Your task to perform on an android device: See recent photos Image 0: 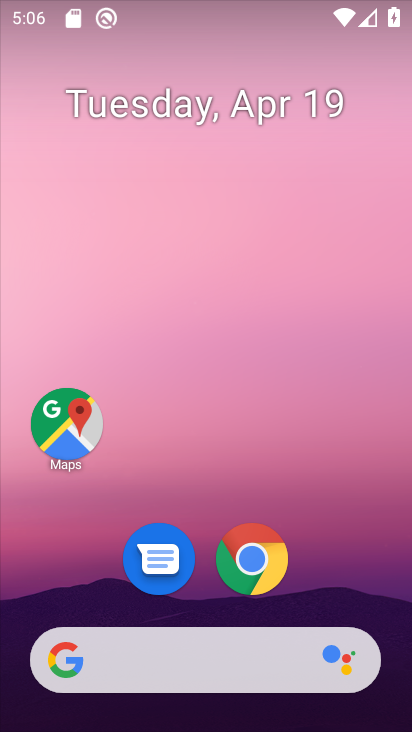
Step 0: press home button
Your task to perform on an android device: See recent photos Image 1: 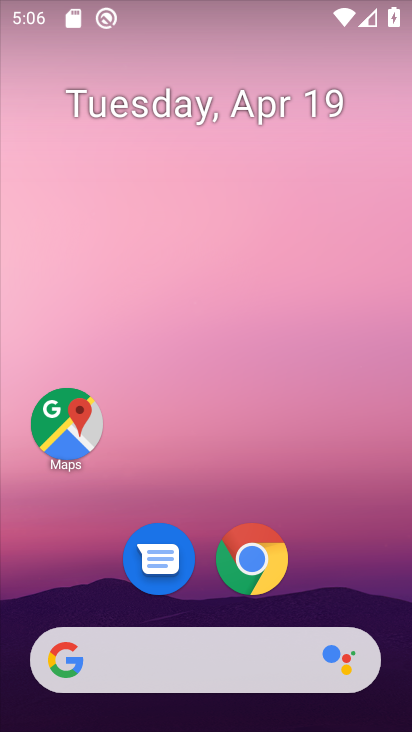
Step 1: drag from (211, 603) to (318, 204)
Your task to perform on an android device: See recent photos Image 2: 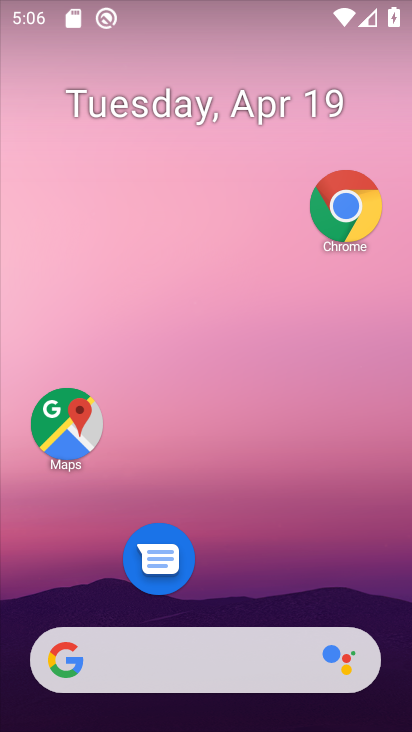
Step 2: drag from (218, 641) to (268, 244)
Your task to perform on an android device: See recent photos Image 3: 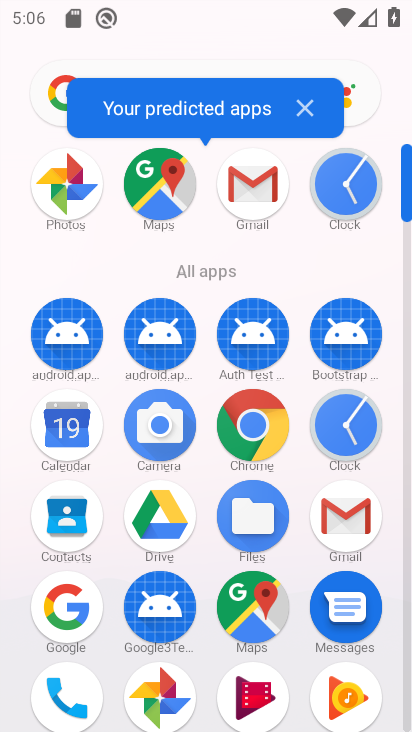
Step 3: drag from (203, 655) to (289, 477)
Your task to perform on an android device: See recent photos Image 4: 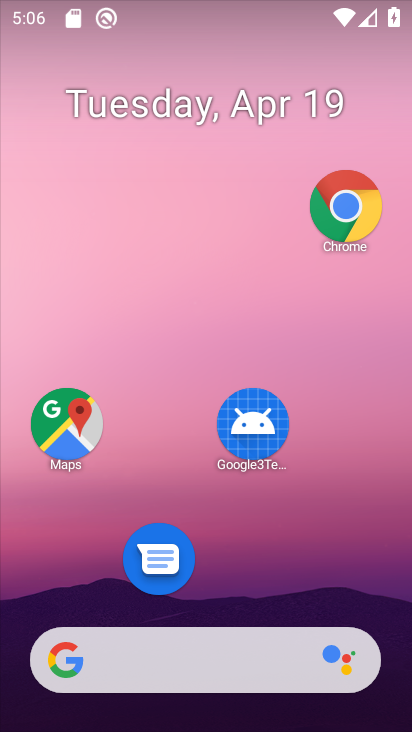
Step 4: drag from (247, 704) to (335, 220)
Your task to perform on an android device: See recent photos Image 5: 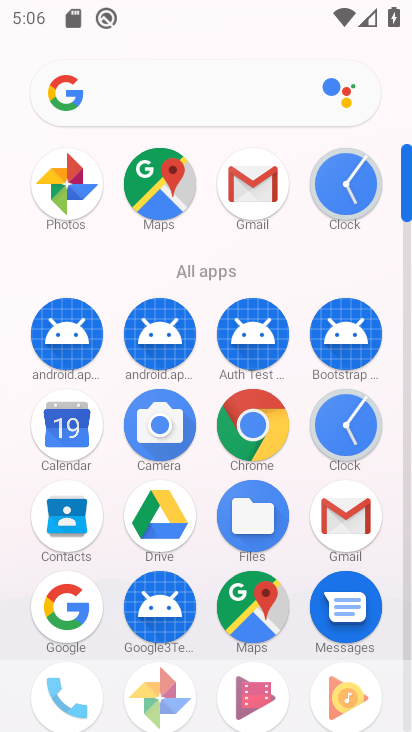
Step 5: click (66, 181)
Your task to perform on an android device: See recent photos Image 6: 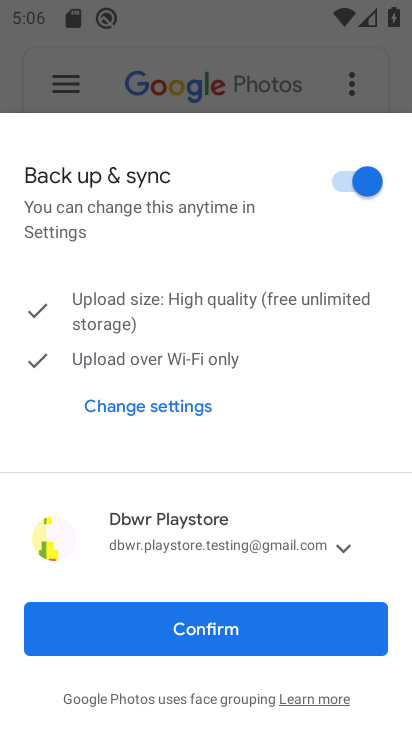
Step 6: click (260, 627)
Your task to perform on an android device: See recent photos Image 7: 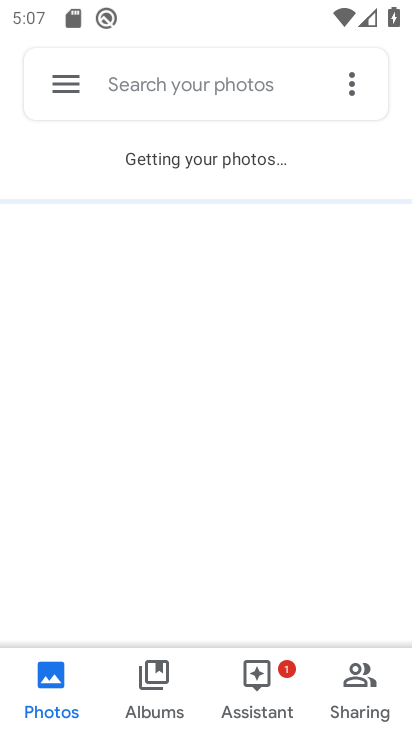
Step 7: click (167, 678)
Your task to perform on an android device: See recent photos Image 8: 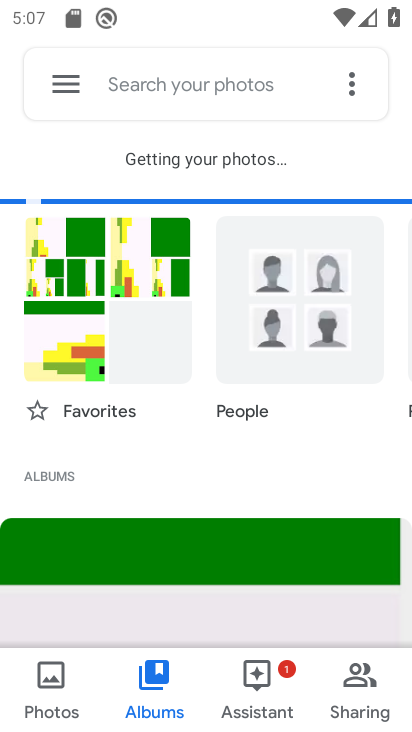
Step 8: task complete